Your task to perform on an android device: Open notification settings Image 0: 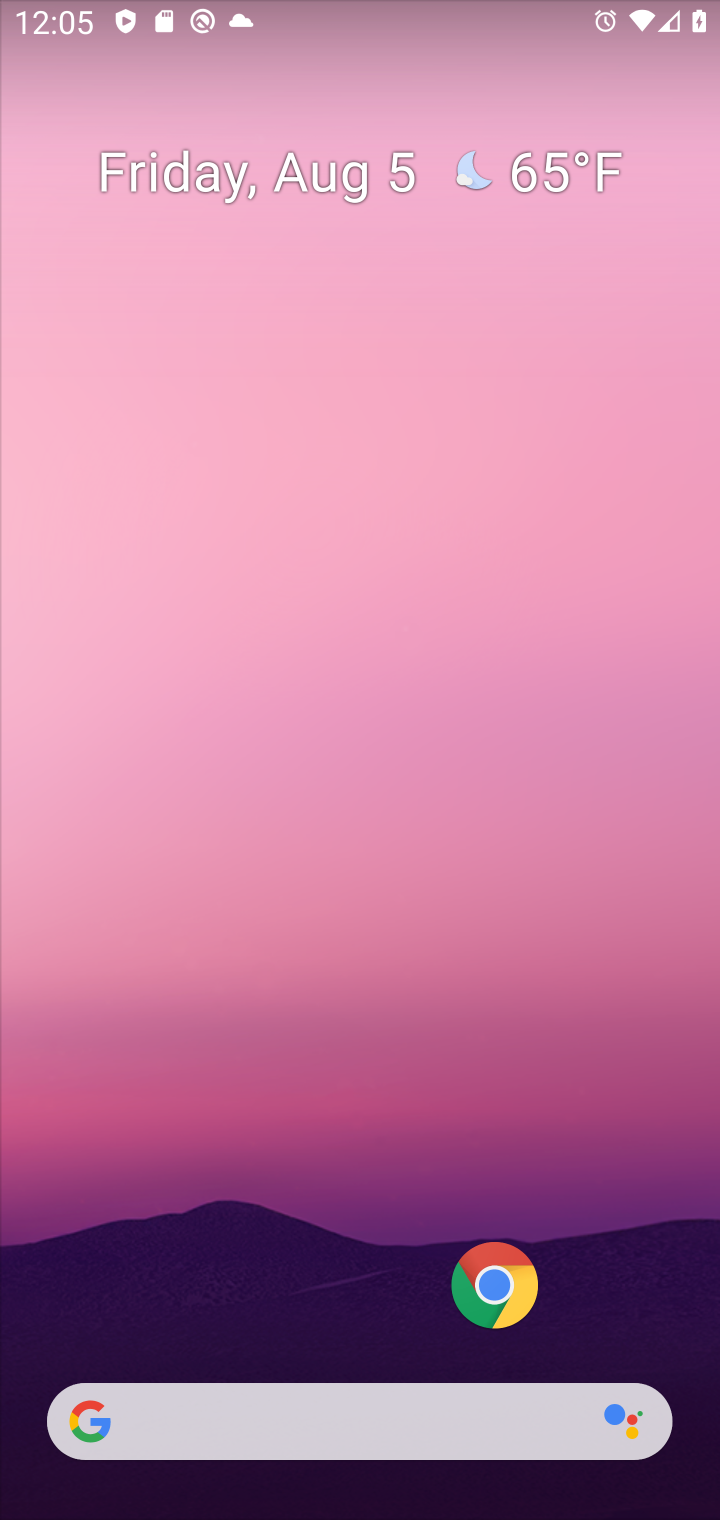
Step 0: drag from (116, 911) to (82, 0)
Your task to perform on an android device: Open notification settings Image 1: 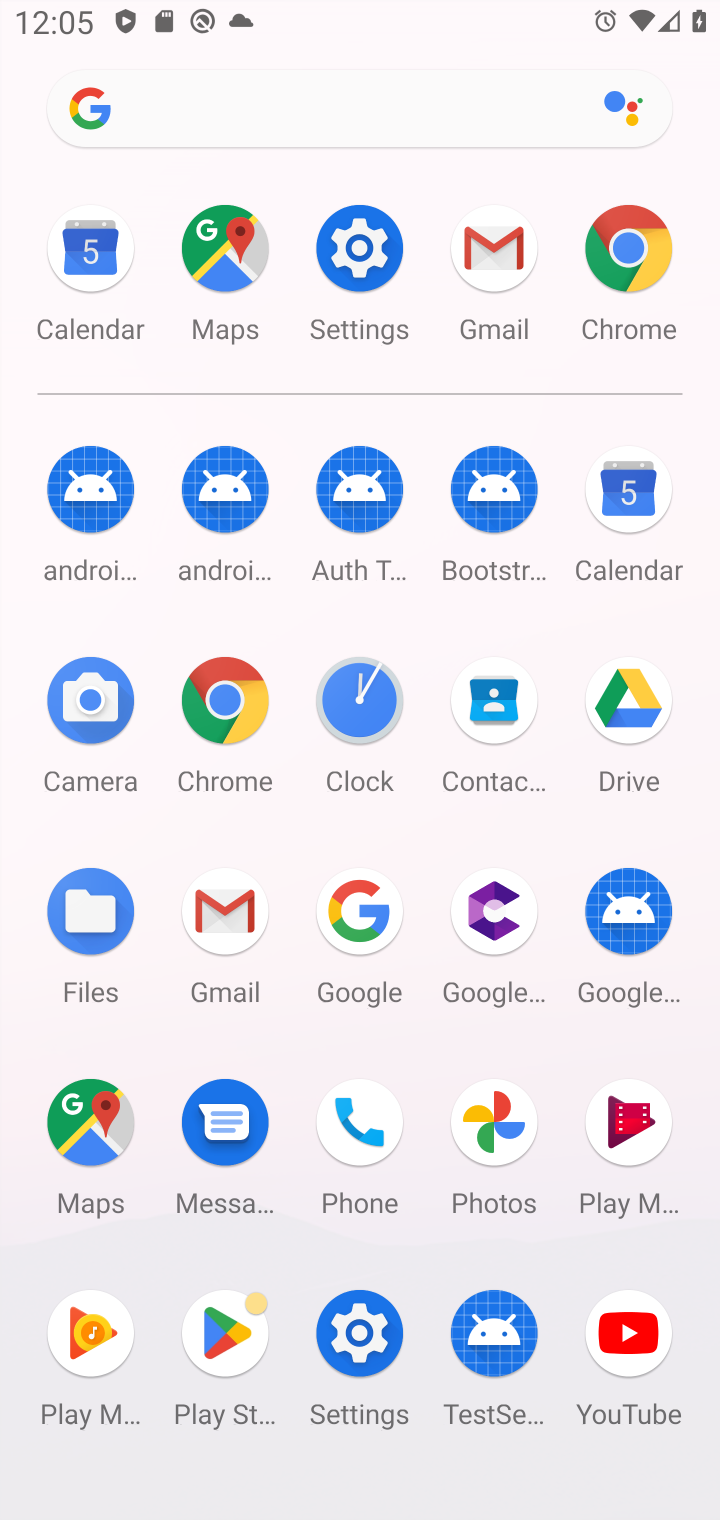
Step 1: click (329, 301)
Your task to perform on an android device: Open notification settings Image 2: 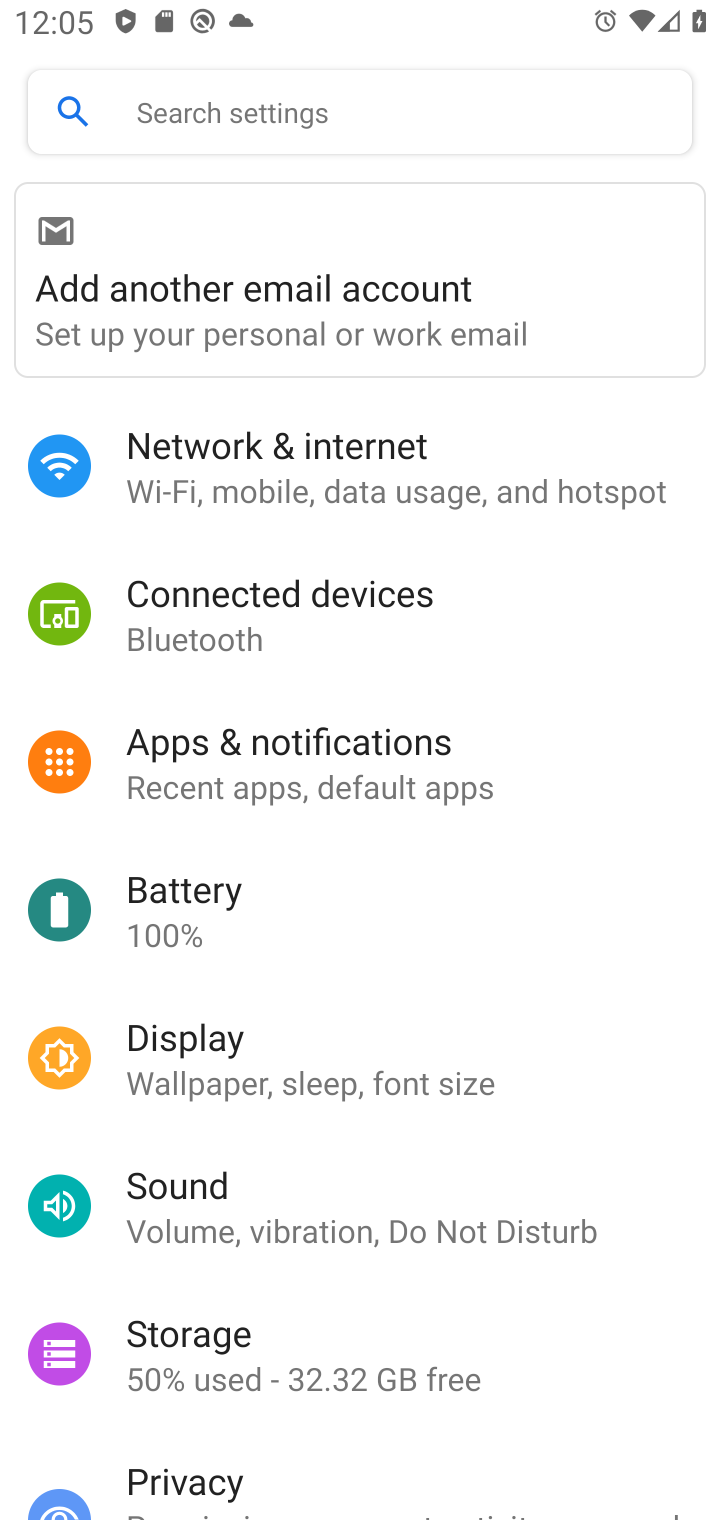
Step 2: click (305, 799)
Your task to perform on an android device: Open notification settings Image 3: 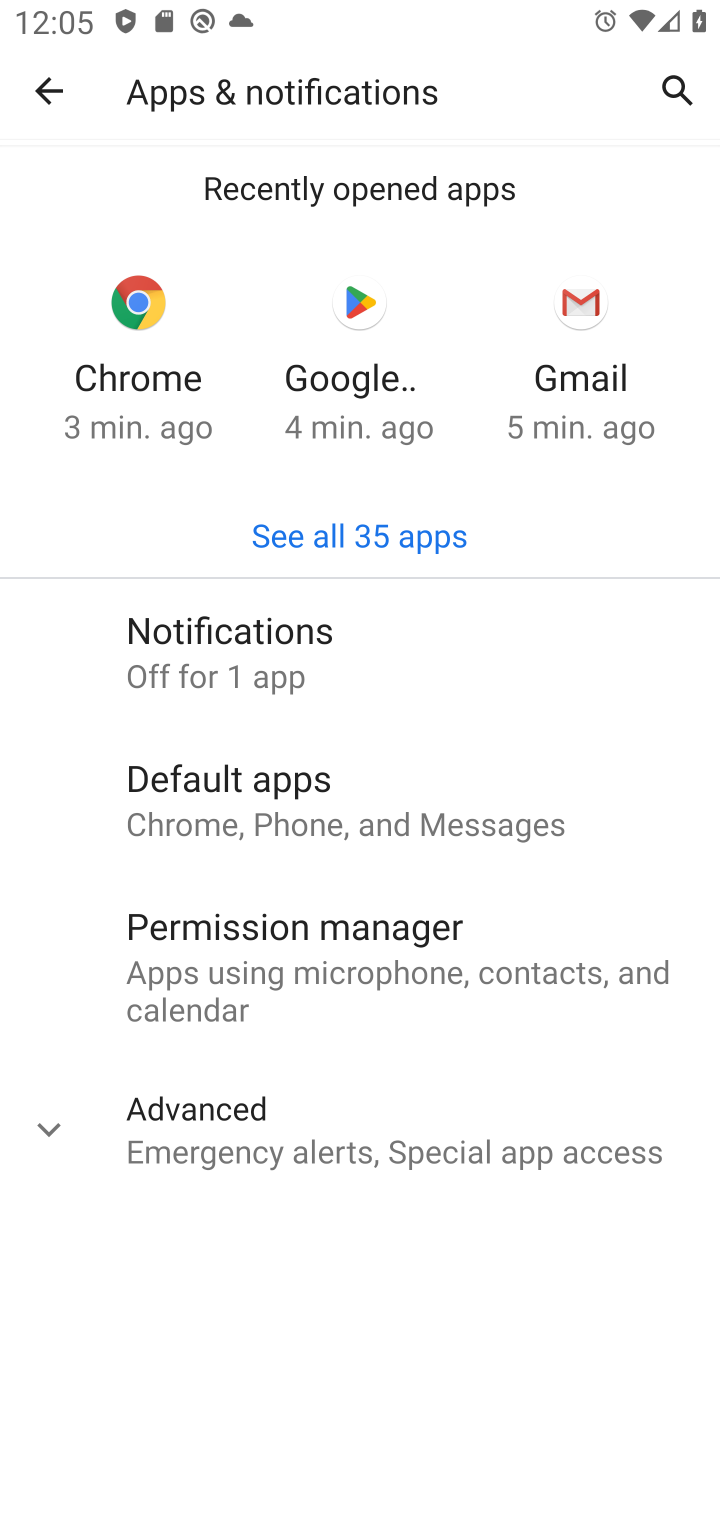
Step 3: click (294, 690)
Your task to perform on an android device: Open notification settings Image 4: 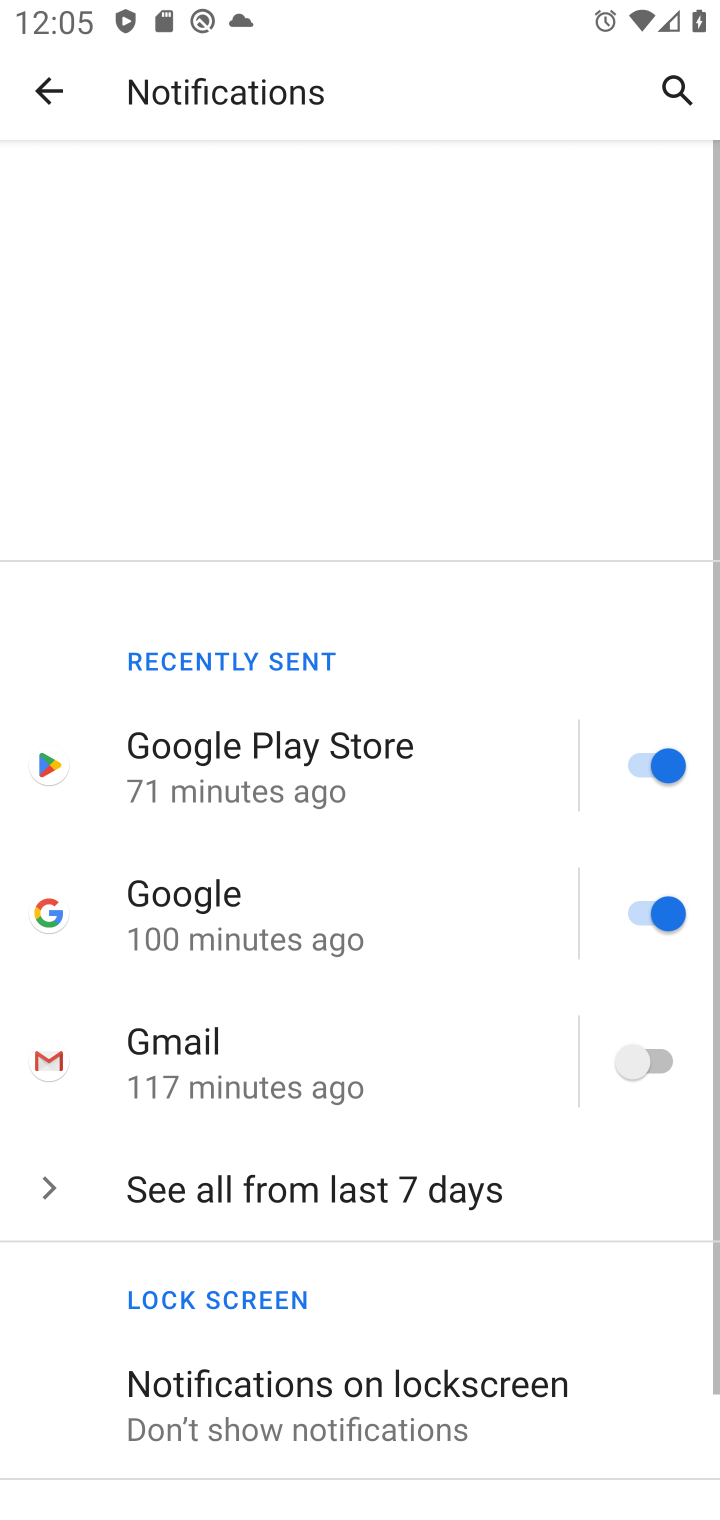
Step 4: task complete